Your task to perform on an android device: Go to accessibility settings Image 0: 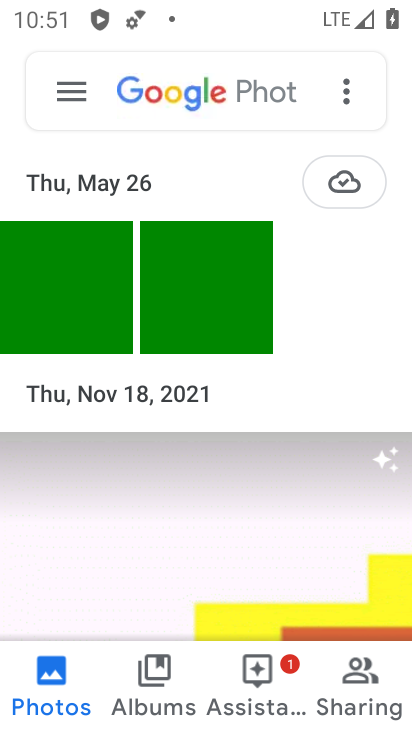
Step 0: press home button
Your task to perform on an android device: Go to accessibility settings Image 1: 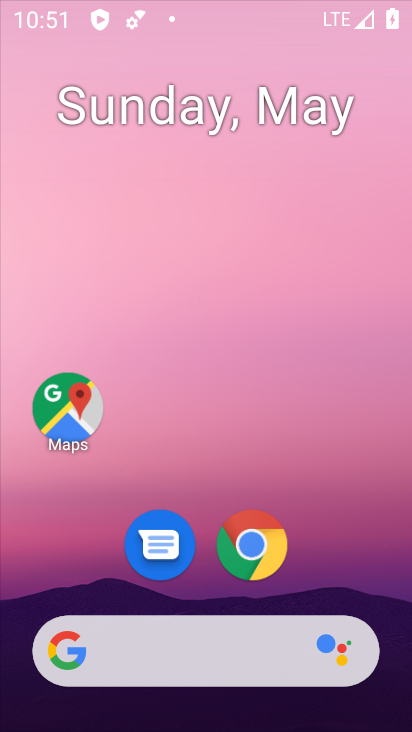
Step 1: drag from (390, 620) to (312, 129)
Your task to perform on an android device: Go to accessibility settings Image 2: 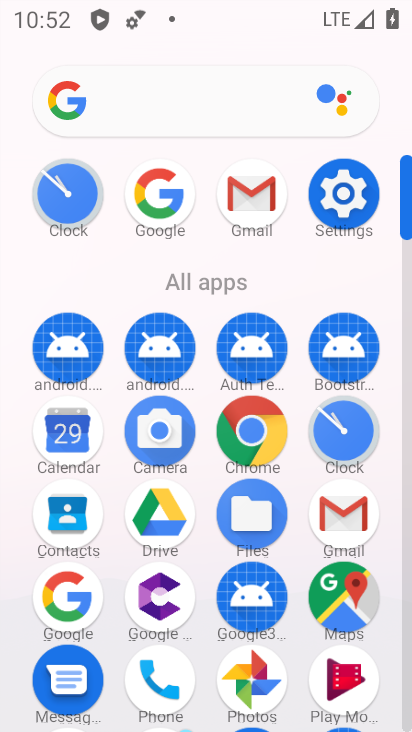
Step 2: click (345, 218)
Your task to perform on an android device: Go to accessibility settings Image 3: 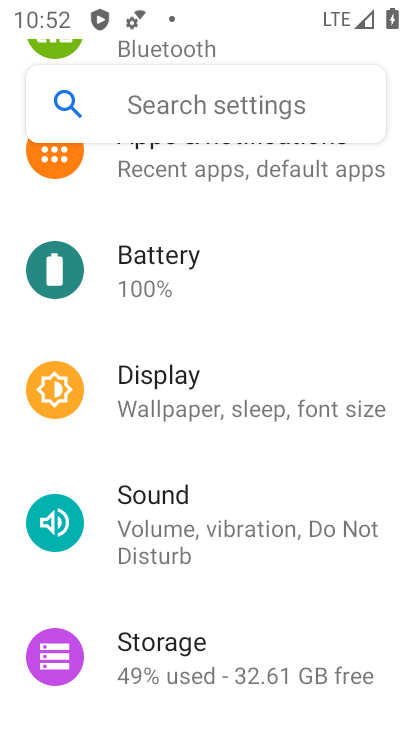
Step 3: drag from (189, 632) to (274, 186)
Your task to perform on an android device: Go to accessibility settings Image 4: 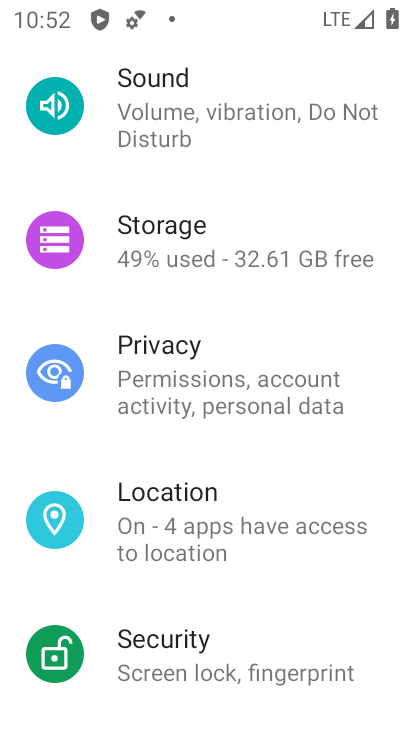
Step 4: drag from (154, 660) to (196, 121)
Your task to perform on an android device: Go to accessibility settings Image 5: 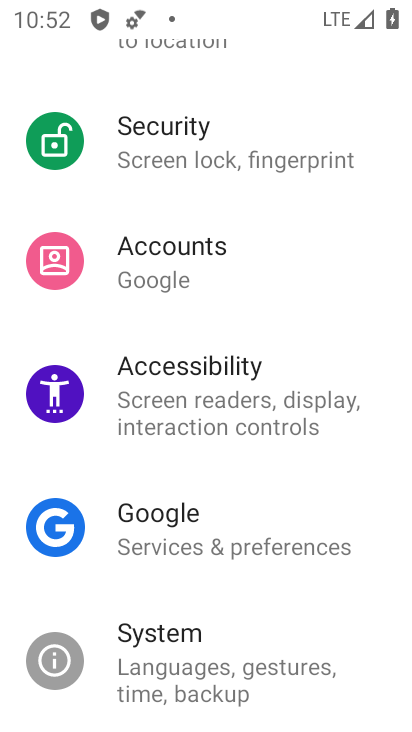
Step 5: click (191, 379)
Your task to perform on an android device: Go to accessibility settings Image 6: 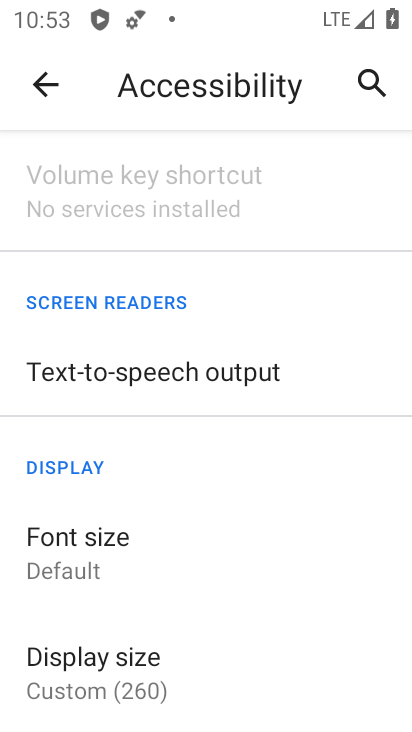
Step 6: task complete